Your task to perform on an android device: Empty the shopping cart on bestbuy.com. Image 0: 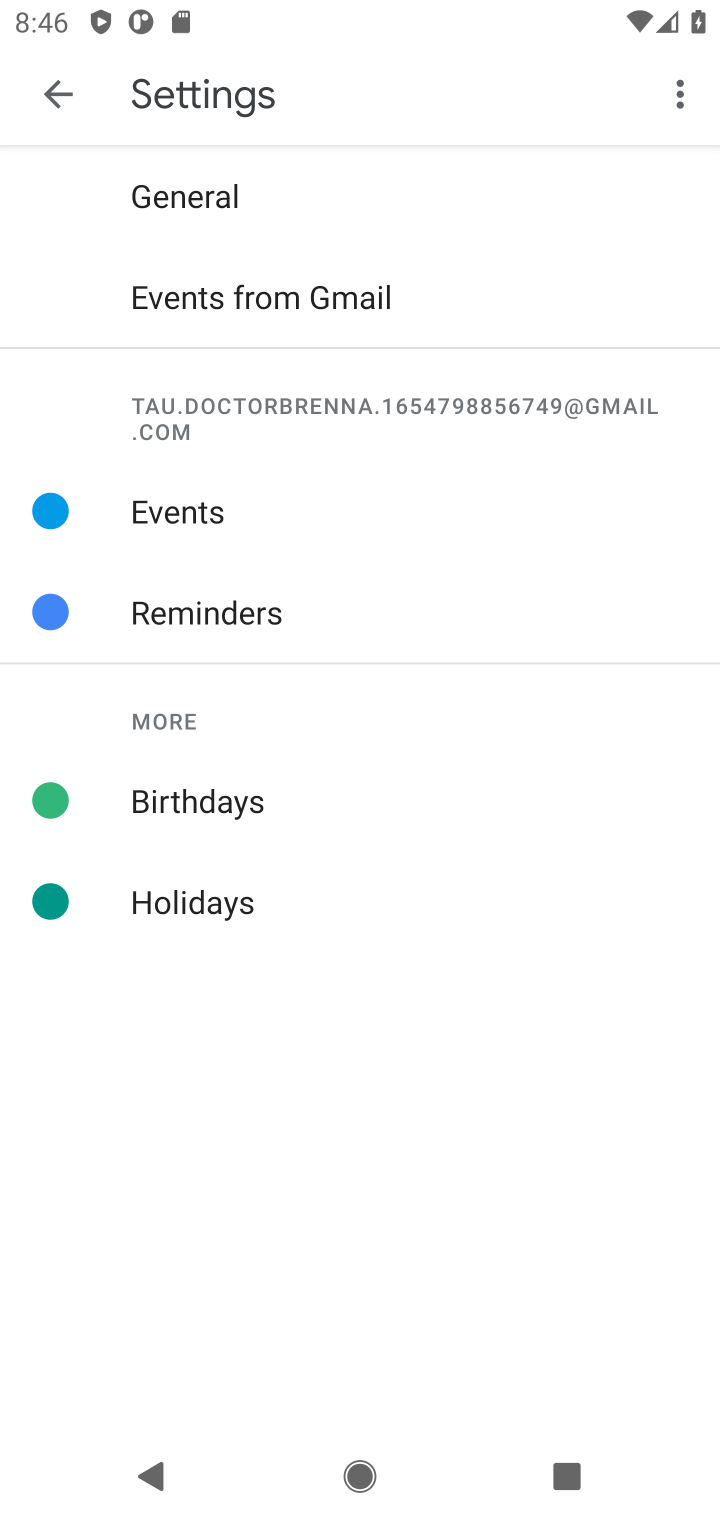
Step 0: press home button
Your task to perform on an android device: Empty the shopping cart on bestbuy.com. Image 1: 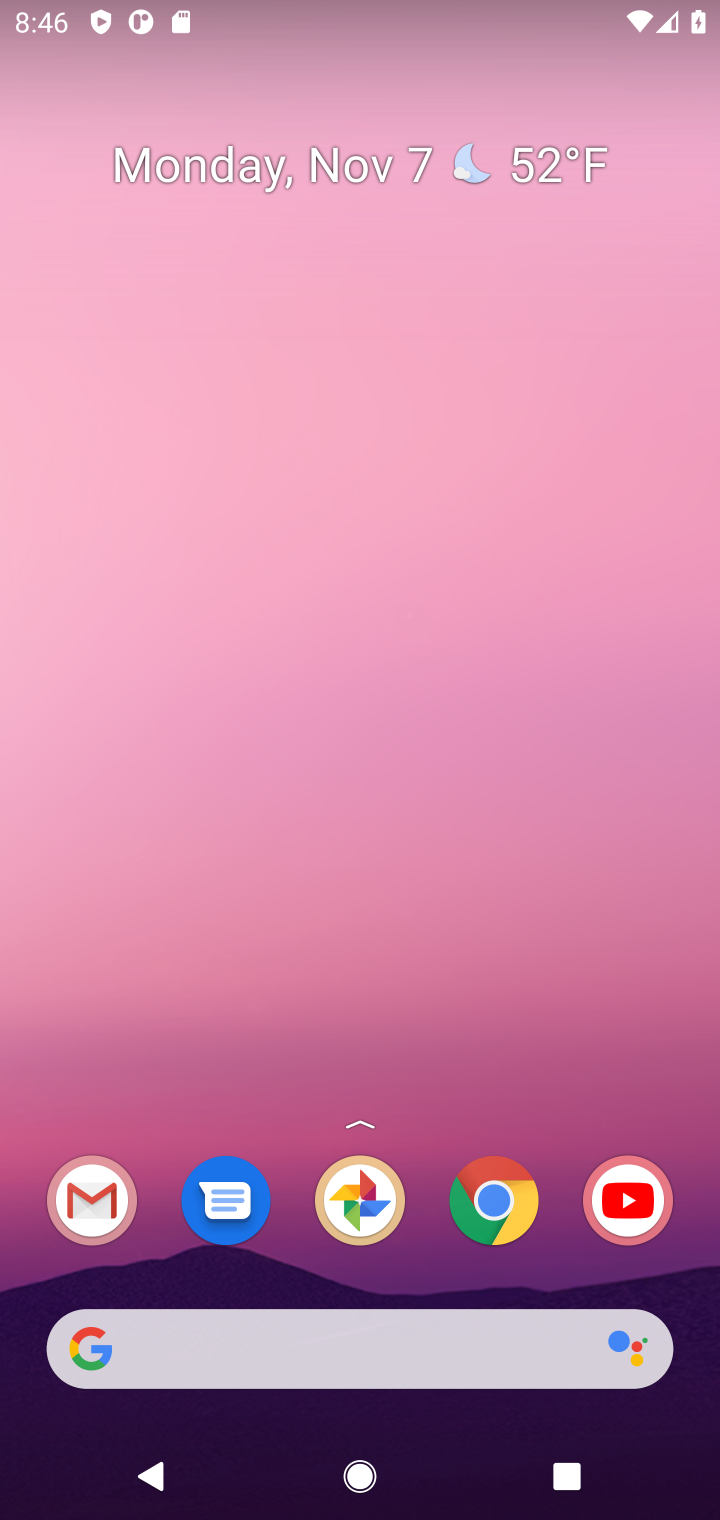
Step 1: click (491, 1188)
Your task to perform on an android device: Empty the shopping cart on bestbuy.com. Image 2: 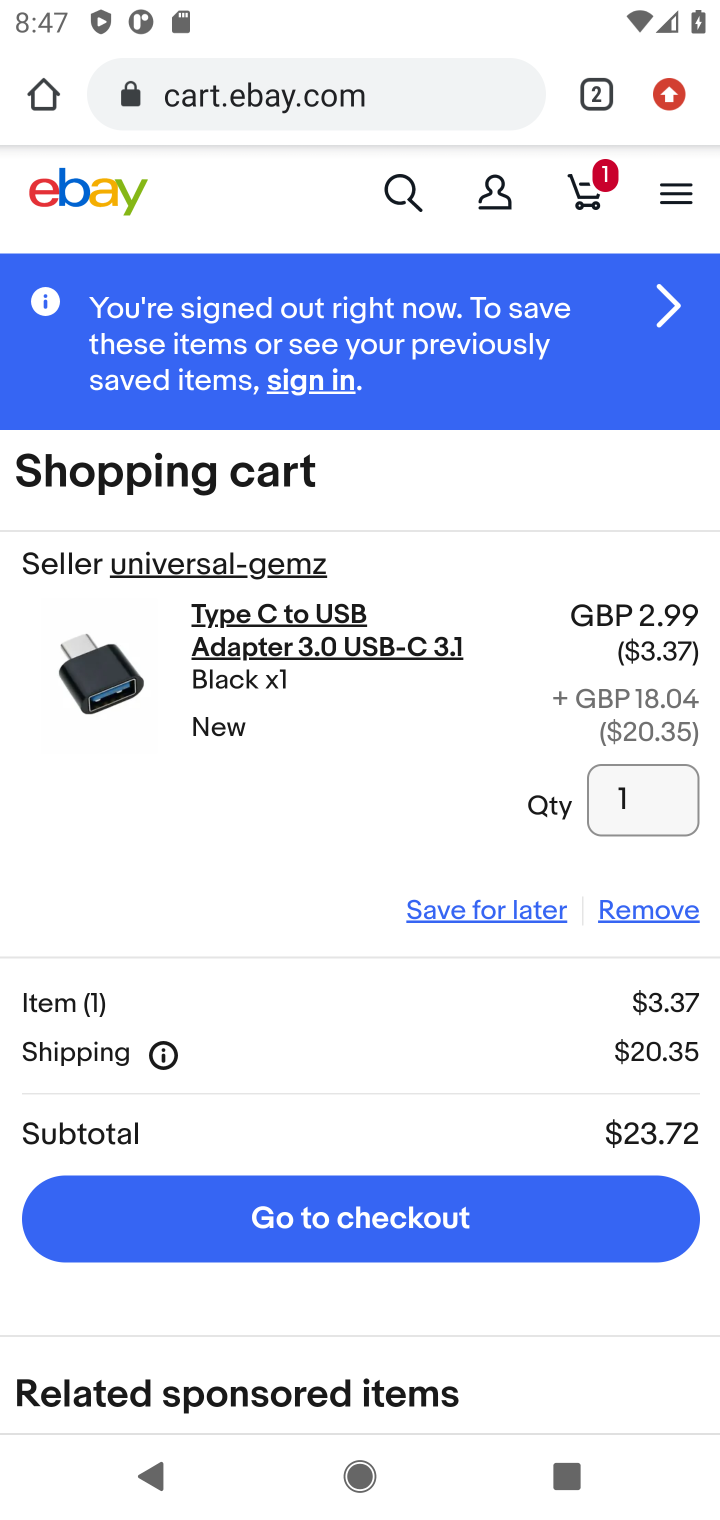
Step 2: click (257, 83)
Your task to perform on an android device: Empty the shopping cart on bestbuy.com. Image 3: 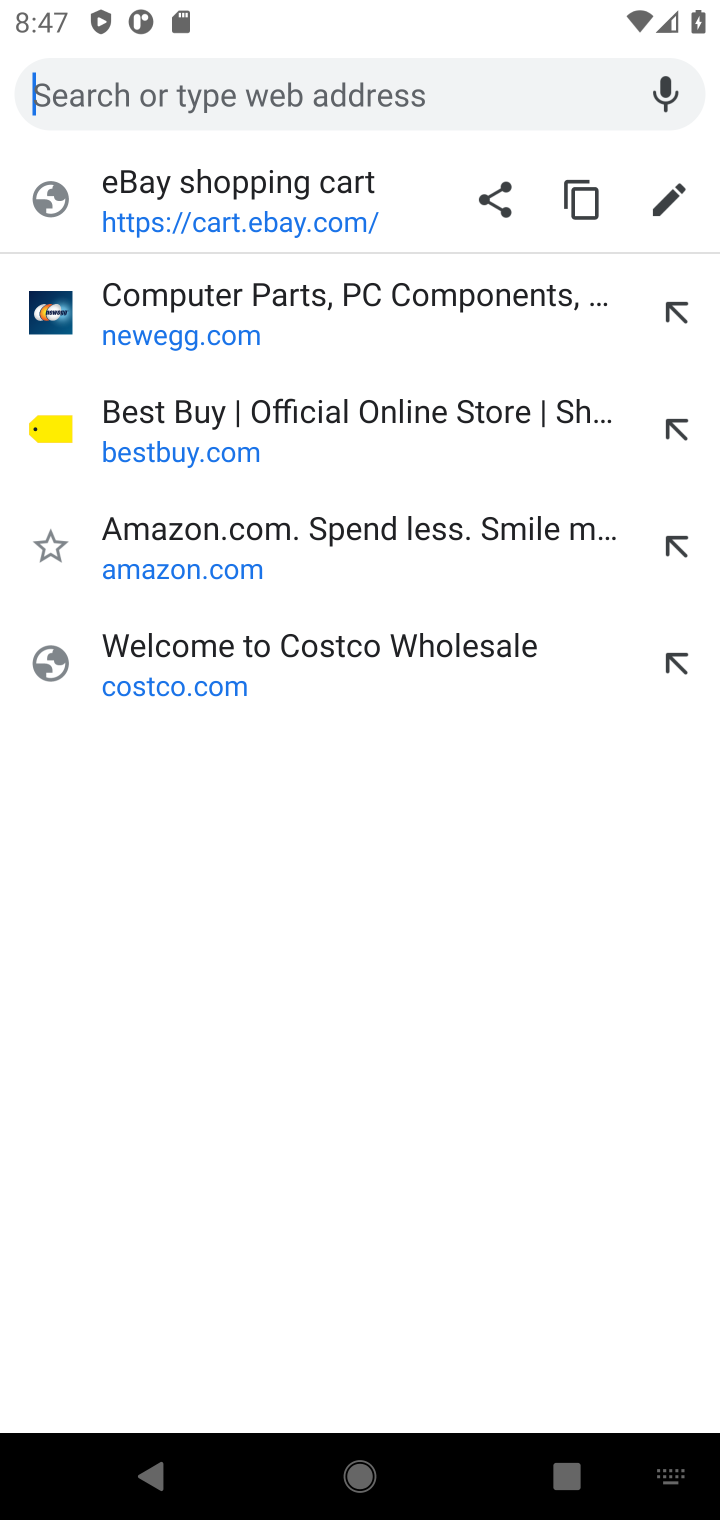
Step 3: type "bestbuy.com"
Your task to perform on an android device: Empty the shopping cart on bestbuy.com. Image 4: 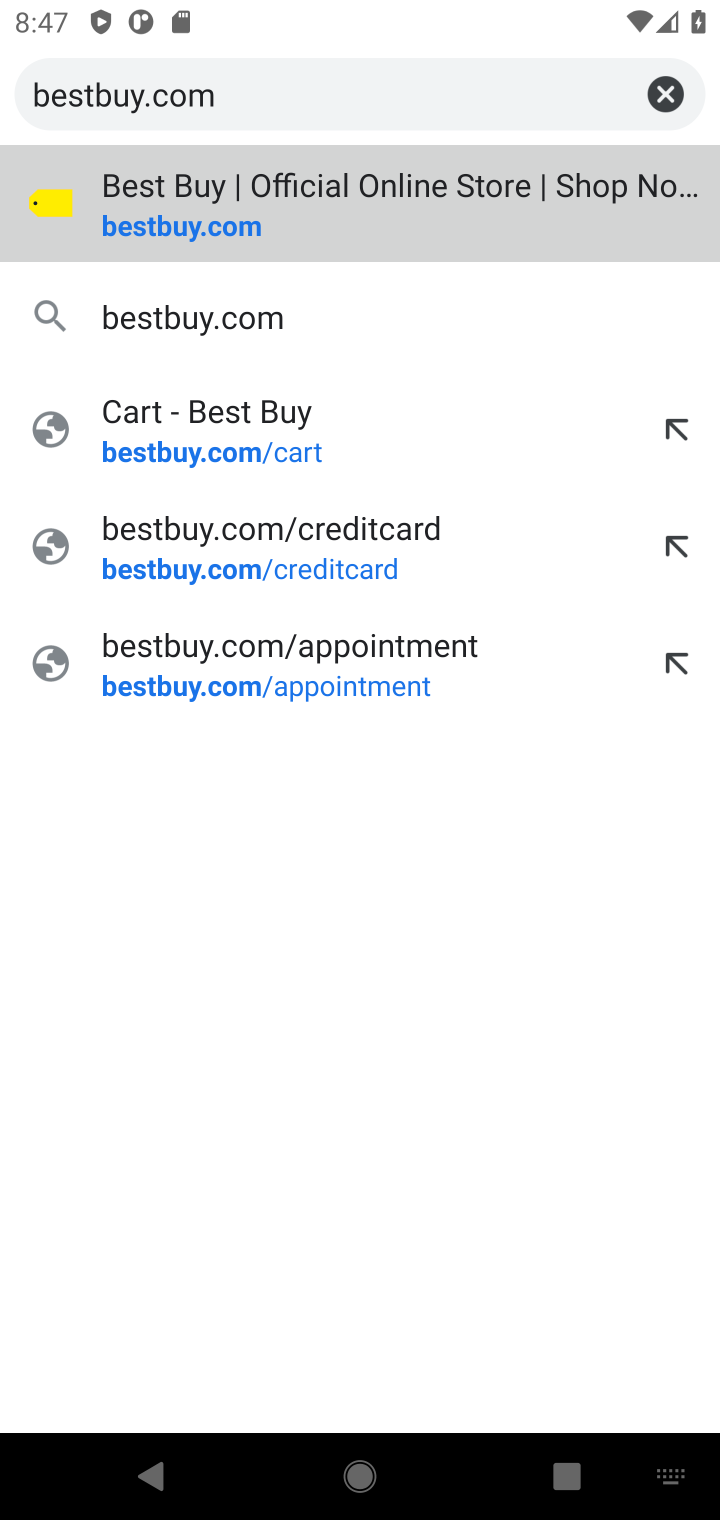
Step 4: press enter
Your task to perform on an android device: Empty the shopping cart on bestbuy.com. Image 5: 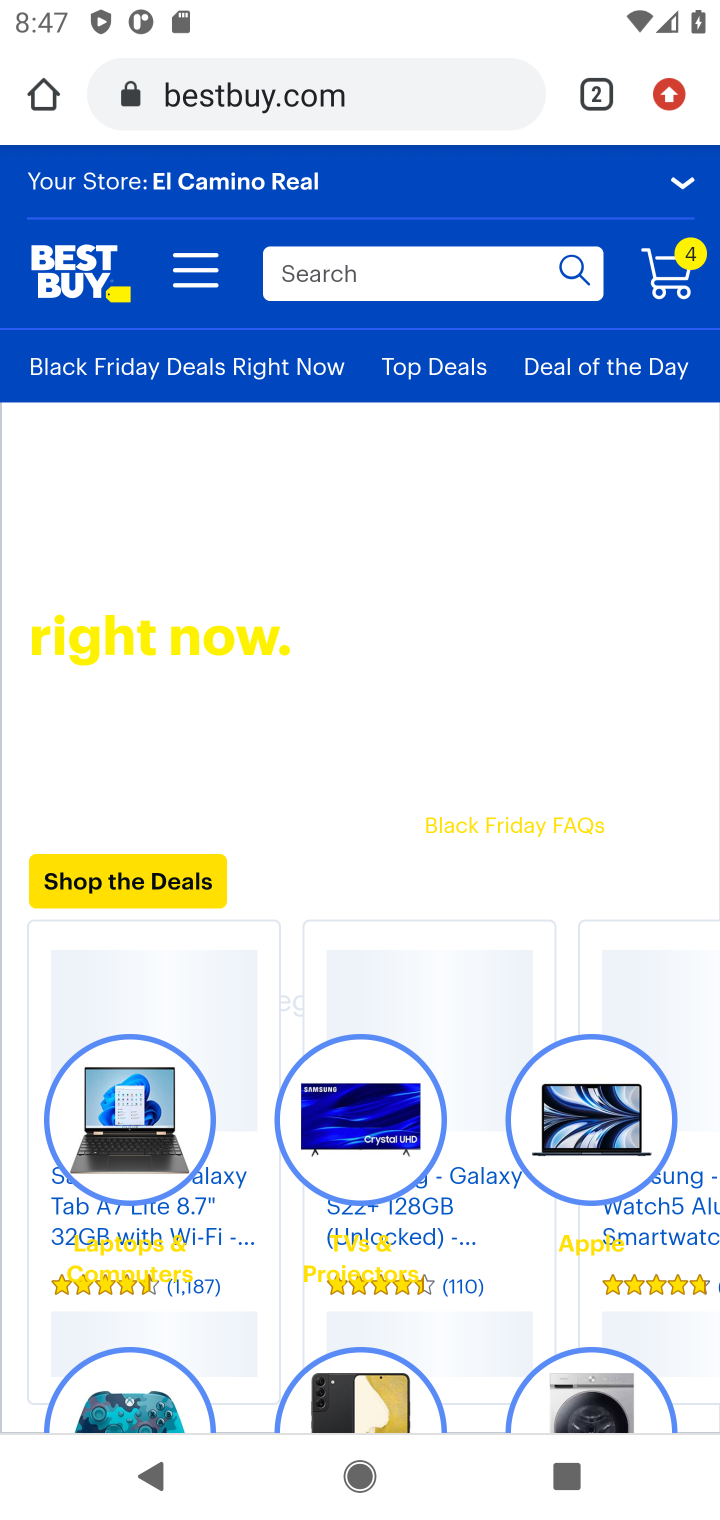
Step 5: click (647, 291)
Your task to perform on an android device: Empty the shopping cart on bestbuy.com. Image 6: 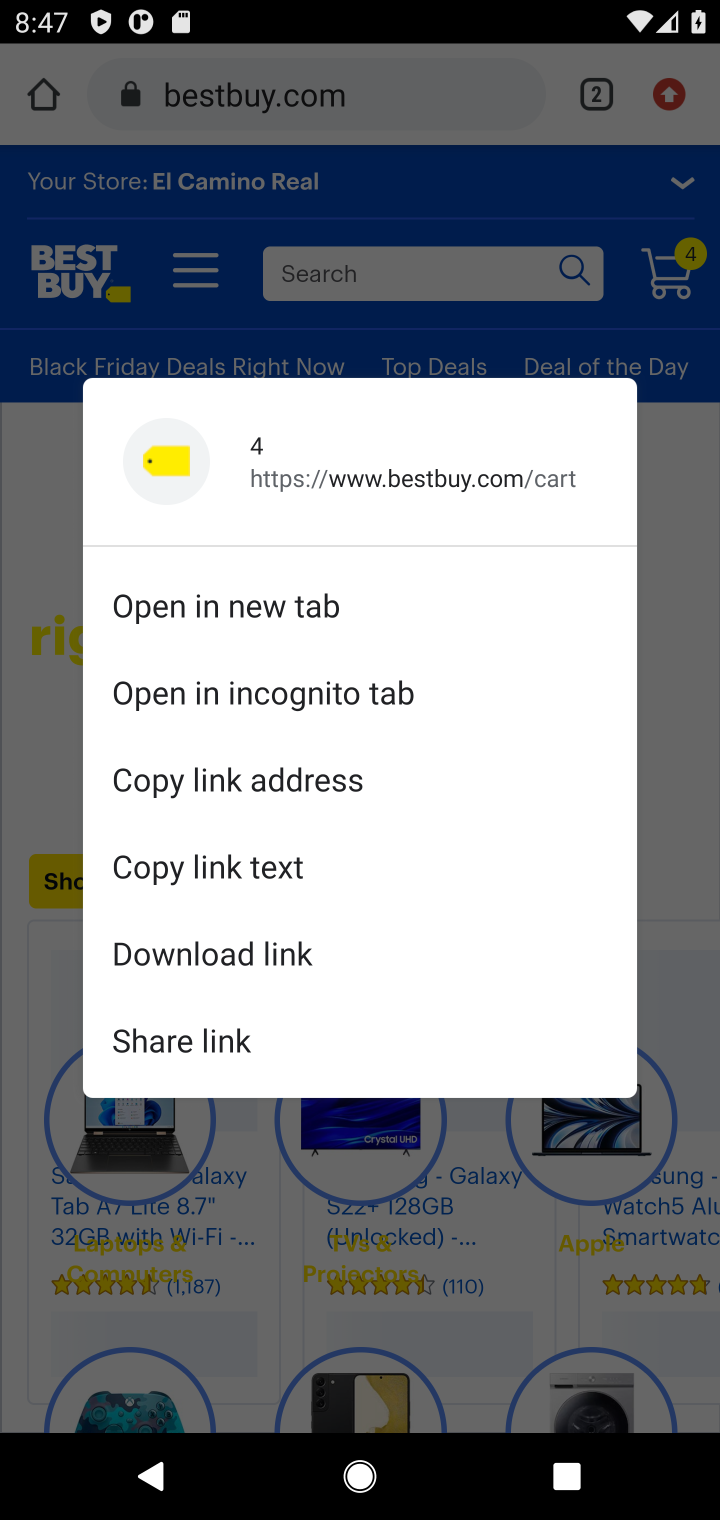
Step 6: click (683, 472)
Your task to perform on an android device: Empty the shopping cart on bestbuy.com. Image 7: 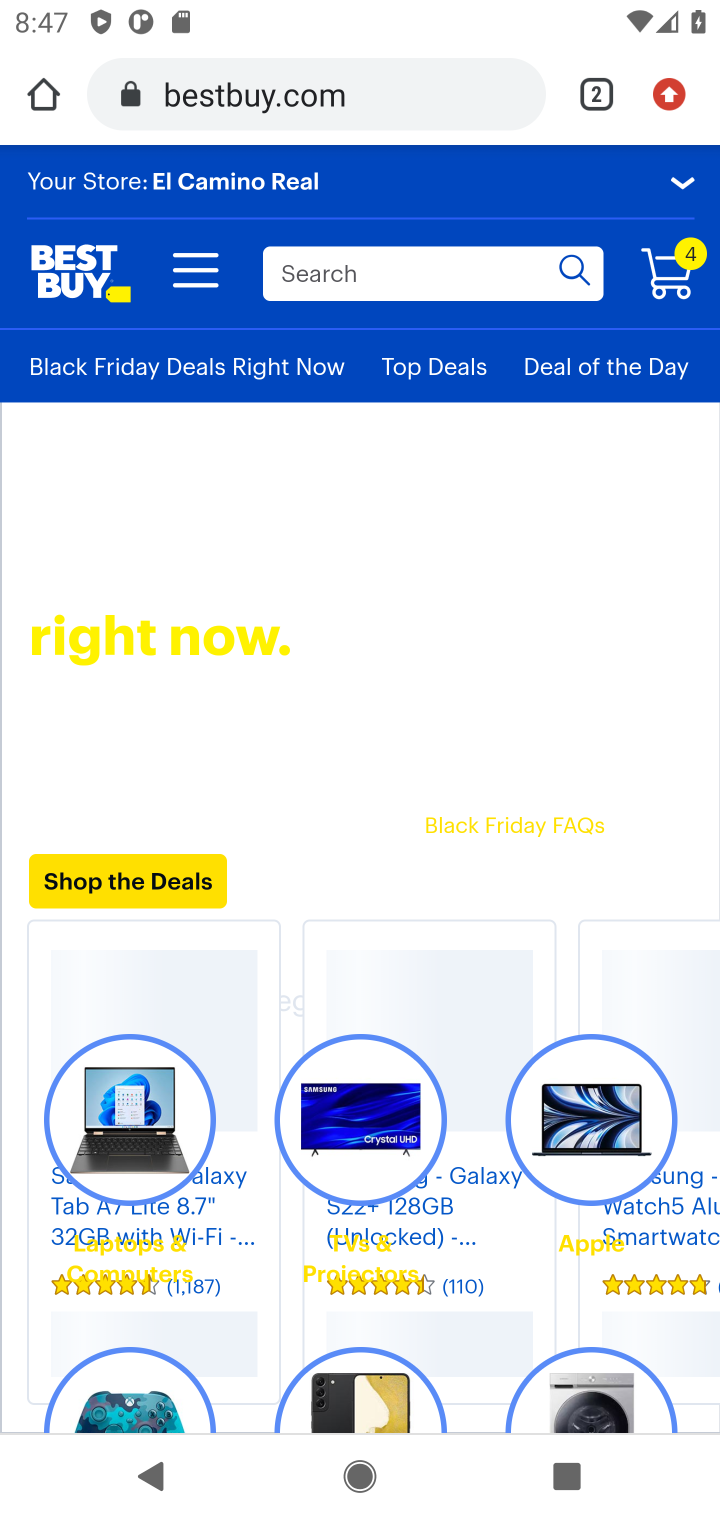
Step 7: click (659, 287)
Your task to perform on an android device: Empty the shopping cart on bestbuy.com. Image 8: 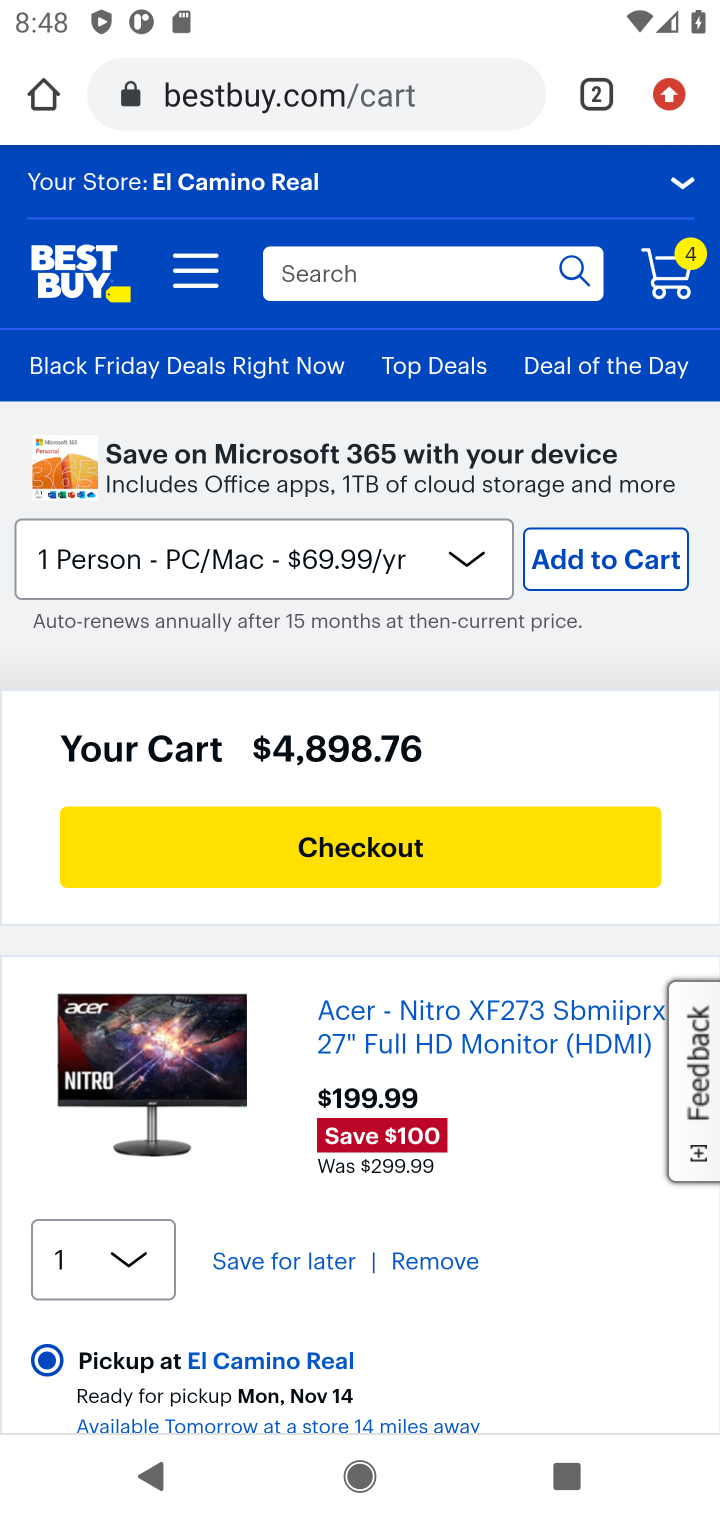
Step 8: task complete